Your task to perform on an android device: check google app version Image 0: 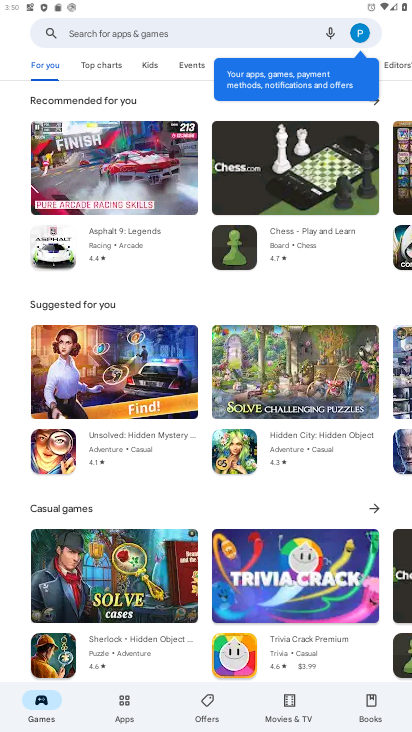
Step 0: press home button
Your task to perform on an android device: check google app version Image 1: 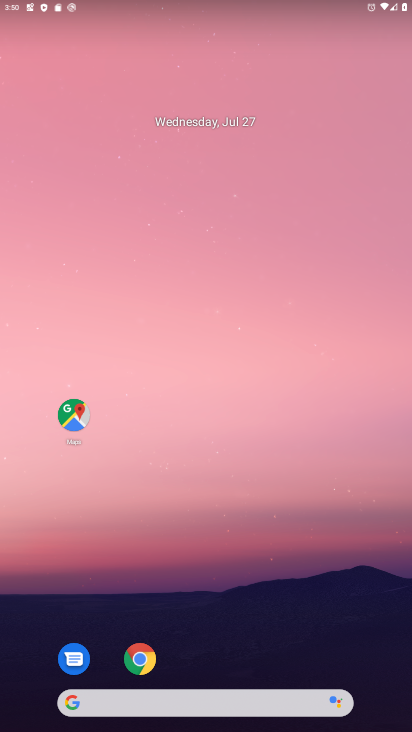
Step 1: drag from (216, 642) to (242, 82)
Your task to perform on an android device: check google app version Image 2: 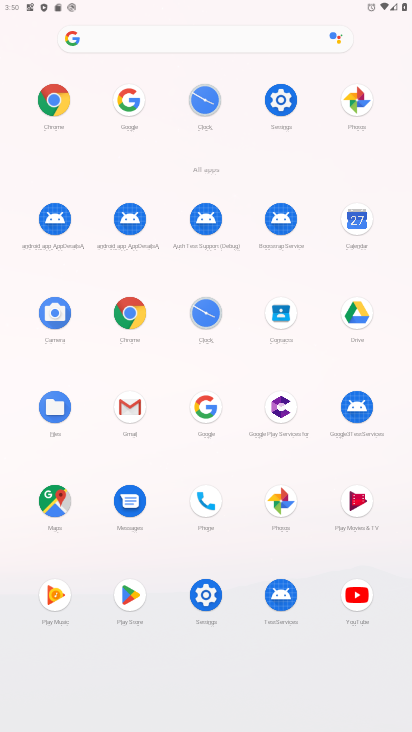
Step 2: click (203, 411)
Your task to perform on an android device: check google app version Image 3: 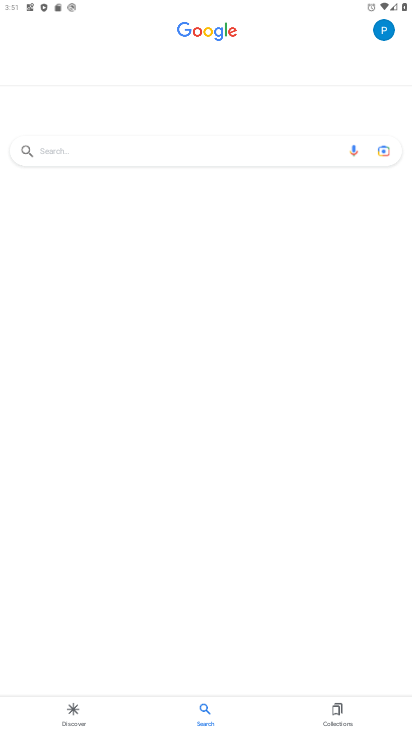
Step 3: click (390, 30)
Your task to perform on an android device: check google app version Image 4: 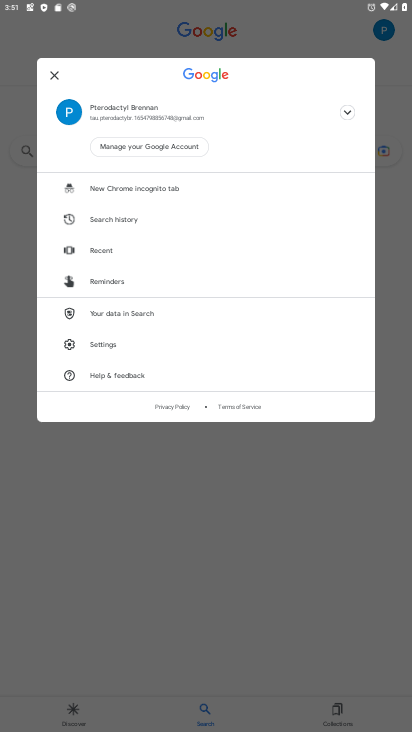
Step 4: click (82, 345)
Your task to perform on an android device: check google app version Image 5: 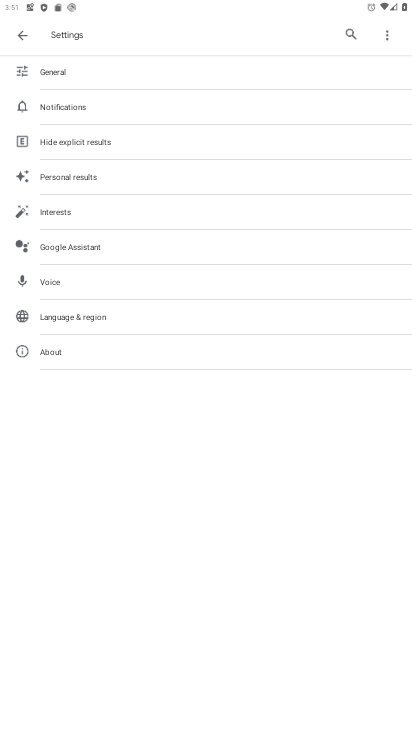
Step 5: click (84, 351)
Your task to perform on an android device: check google app version Image 6: 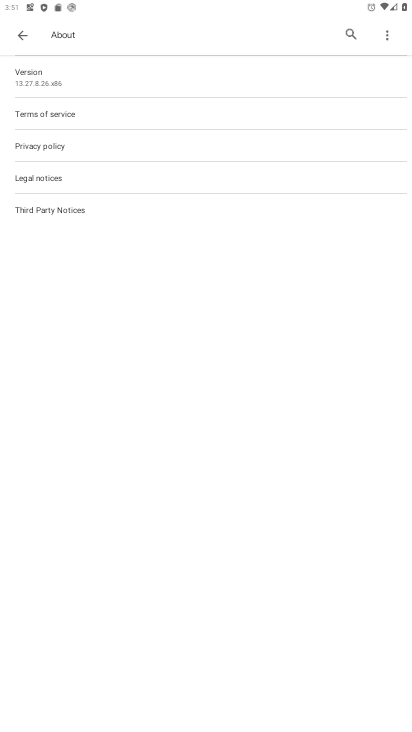
Step 6: click (54, 66)
Your task to perform on an android device: check google app version Image 7: 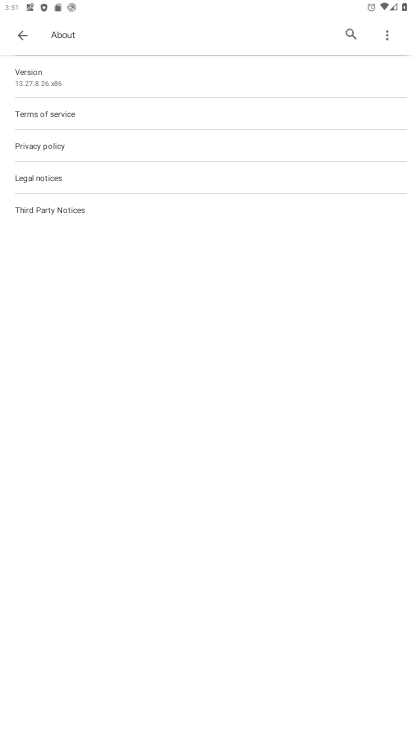
Step 7: task complete